Your task to perform on an android device: Open eBay Image 0: 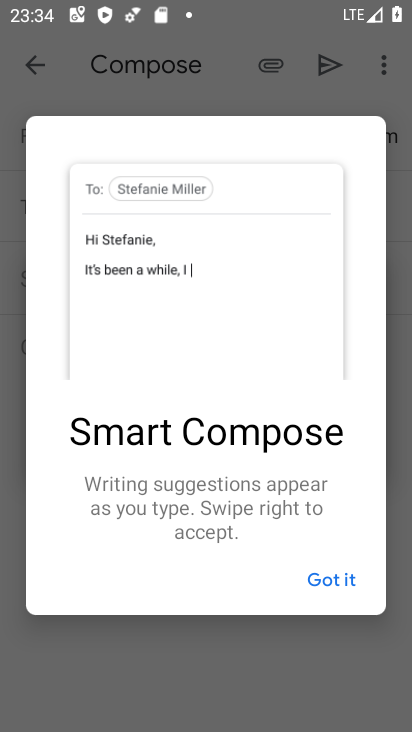
Step 0: press home button
Your task to perform on an android device: Open eBay Image 1: 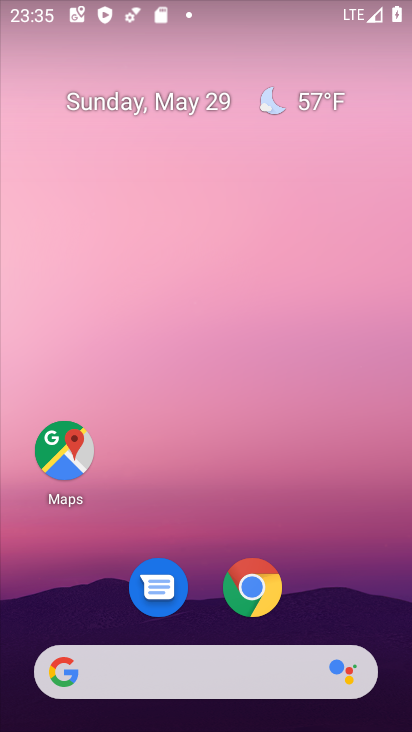
Step 1: click (261, 597)
Your task to perform on an android device: Open eBay Image 2: 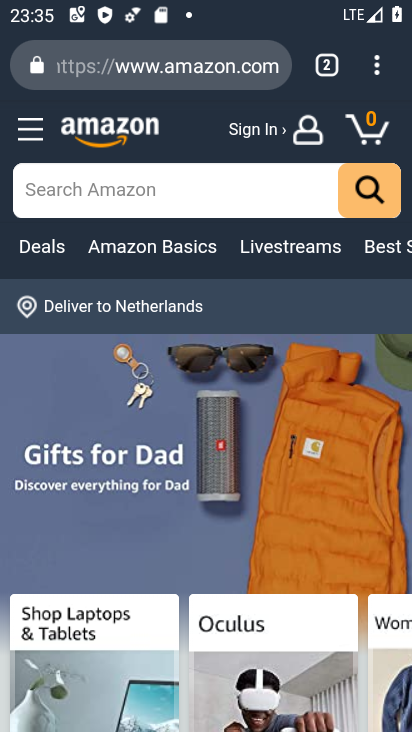
Step 2: click (327, 60)
Your task to perform on an android device: Open eBay Image 3: 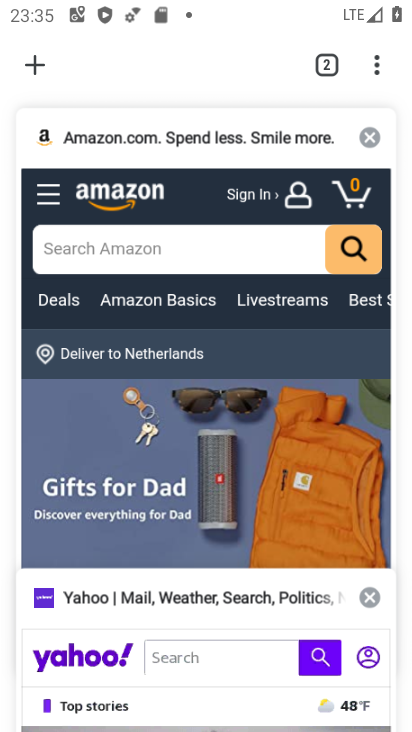
Step 3: click (34, 70)
Your task to perform on an android device: Open eBay Image 4: 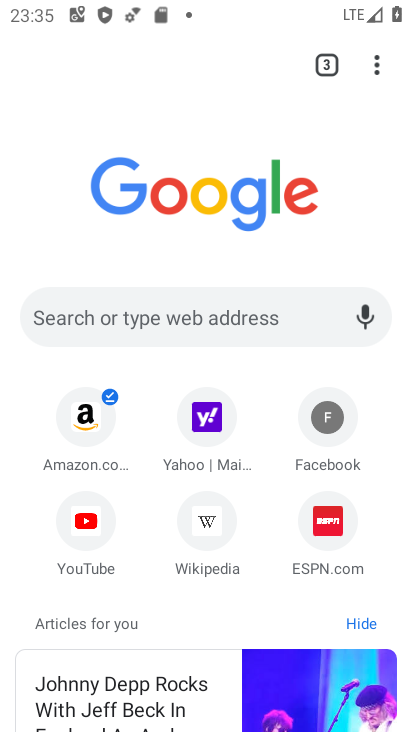
Step 4: click (217, 322)
Your task to perform on an android device: Open eBay Image 5: 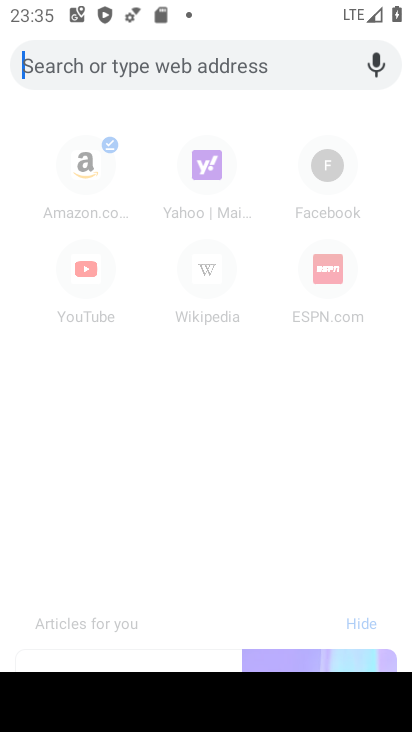
Step 5: type "ebay"
Your task to perform on an android device: Open eBay Image 6: 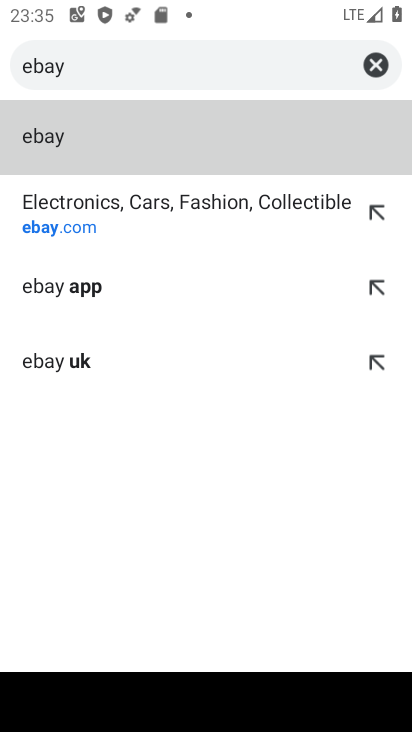
Step 6: click (22, 132)
Your task to perform on an android device: Open eBay Image 7: 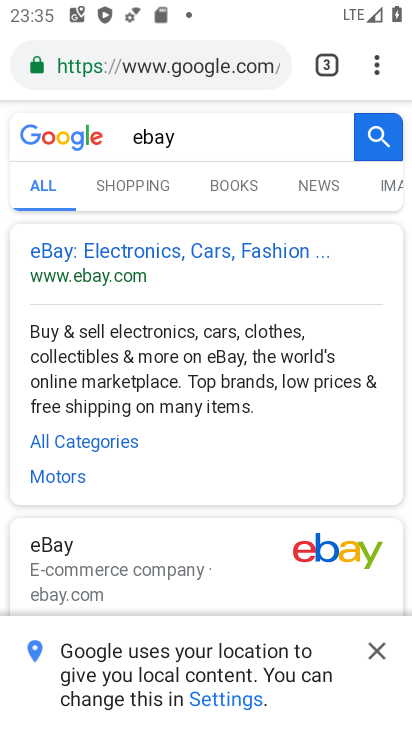
Step 7: click (201, 251)
Your task to perform on an android device: Open eBay Image 8: 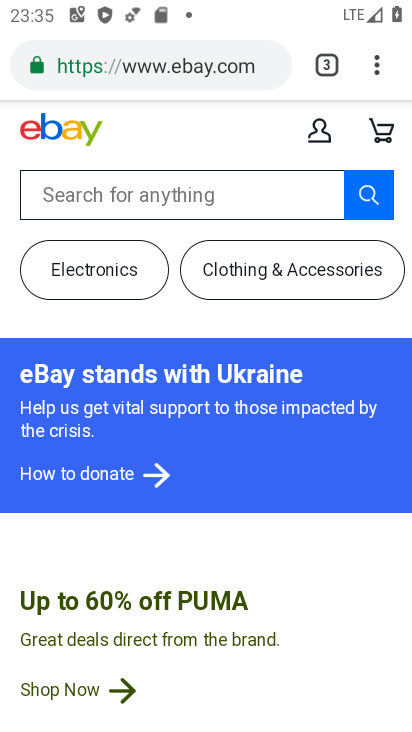
Step 8: task complete